Your task to perform on an android device: Open display settings Image 0: 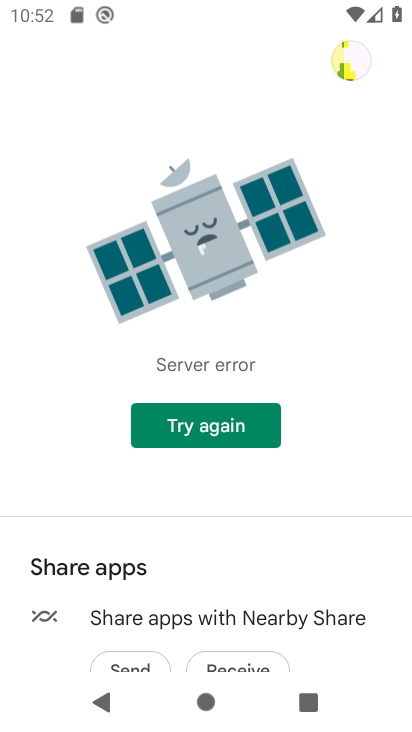
Step 0: press home button
Your task to perform on an android device: Open display settings Image 1: 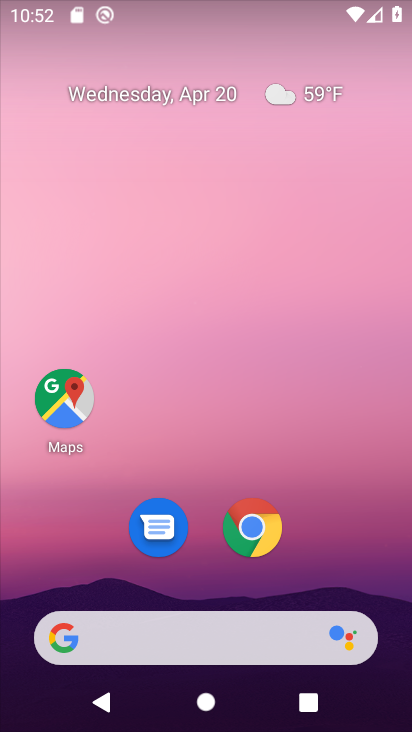
Step 1: drag from (364, 556) to (401, 140)
Your task to perform on an android device: Open display settings Image 2: 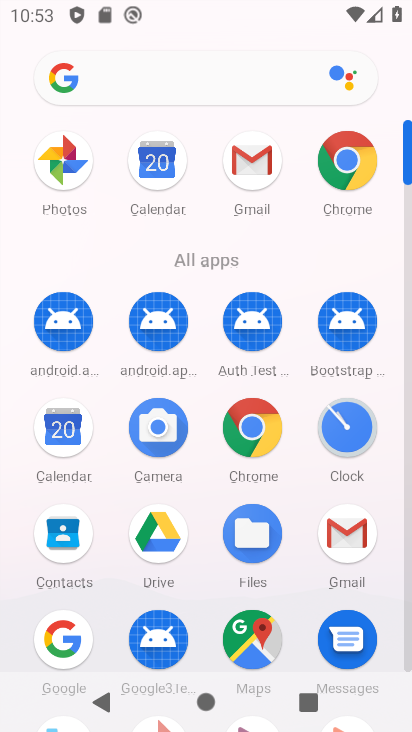
Step 2: drag from (198, 577) to (201, 241)
Your task to perform on an android device: Open display settings Image 3: 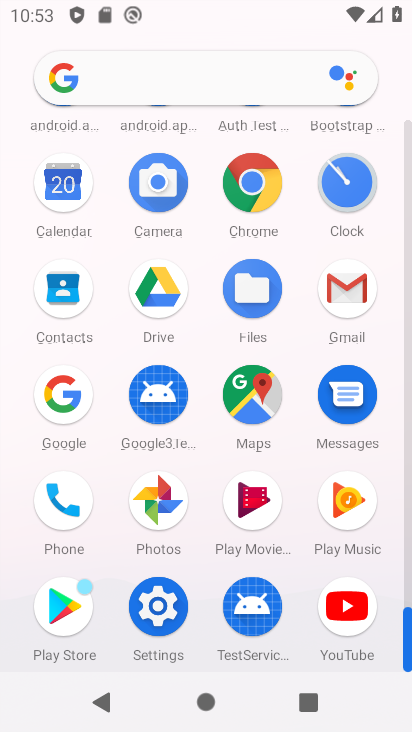
Step 3: click (148, 594)
Your task to perform on an android device: Open display settings Image 4: 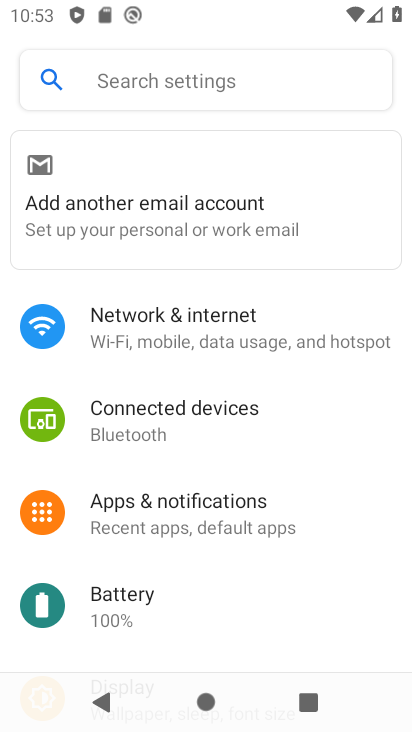
Step 4: drag from (306, 586) to (347, 296)
Your task to perform on an android device: Open display settings Image 5: 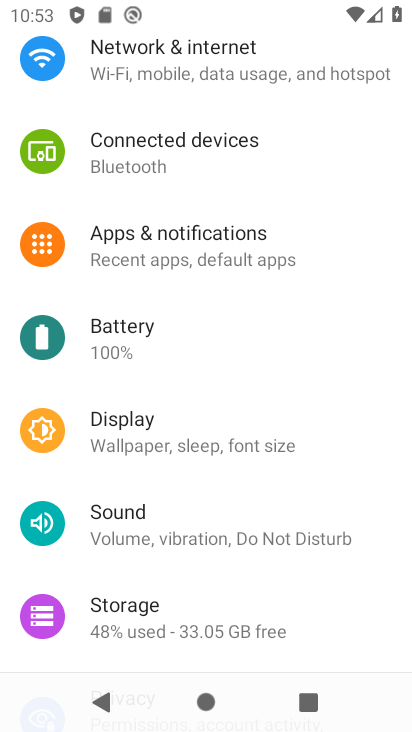
Step 5: click (226, 430)
Your task to perform on an android device: Open display settings Image 6: 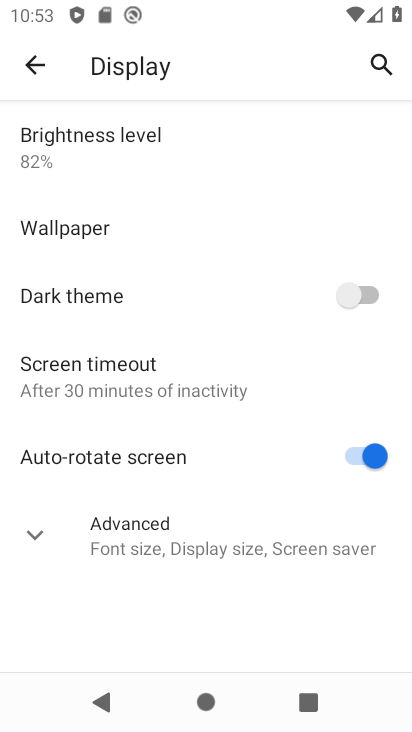
Step 6: task complete